Your task to perform on an android device: delete the emails in spam in the gmail app Image 0: 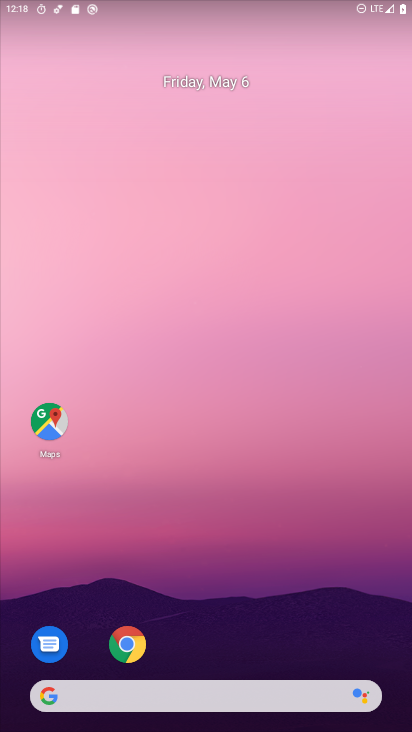
Step 0: drag from (346, 606) to (347, 164)
Your task to perform on an android device: delete the emails in spam in the gmail app Image 1: 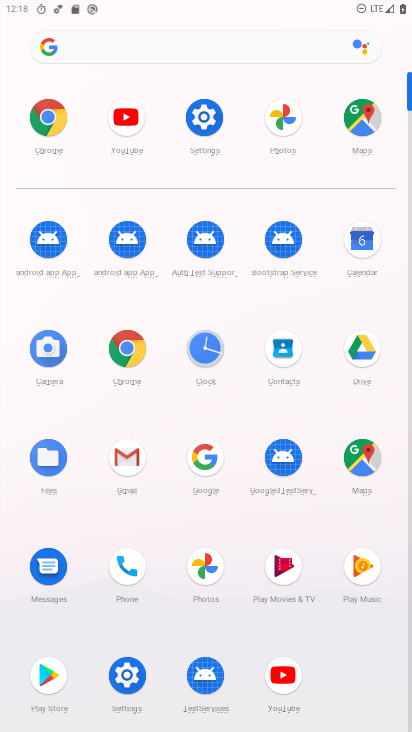
Step 1: click (131, 471)
Your task to perform on an android device: delete the emails in spam in the gmail app Image 2: 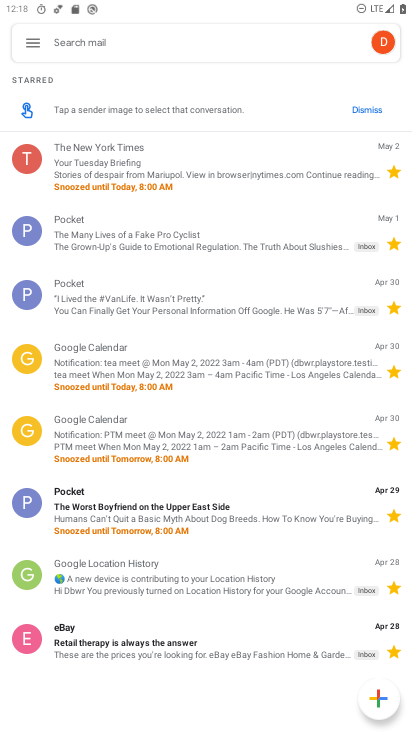
Step 2: click (31, 47)
Your task to perform on an android device: delete the emails in spam in the gmail app Image 3: 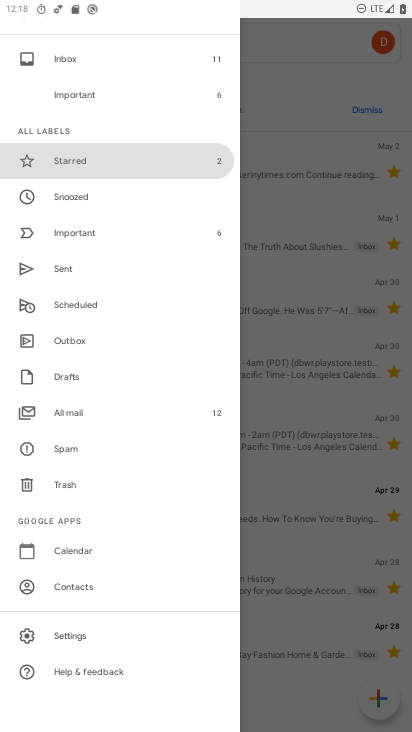
Step 3: click (64, 452)
Your task to perform on an android device: delete the emails in spam in the gmail app Image 4: 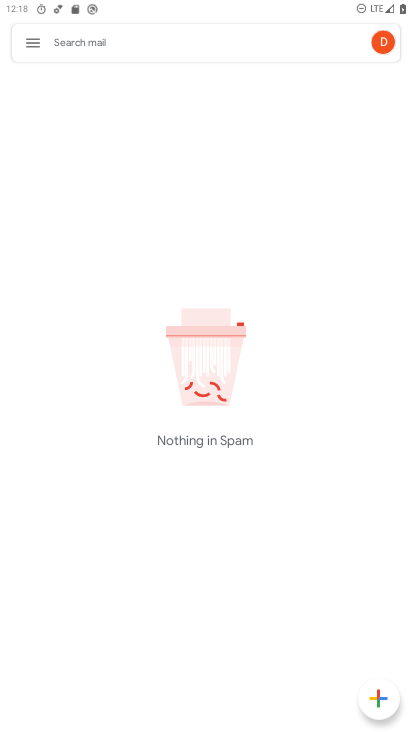
Step 4: task complete